Your task to perform on an android device: Open location settings Image 0: 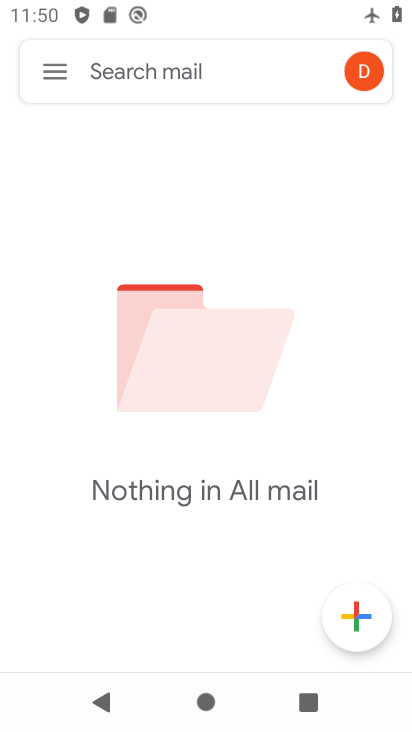
Step 0: press home button
Your task to perform on an android device: Open location settings Image 1: 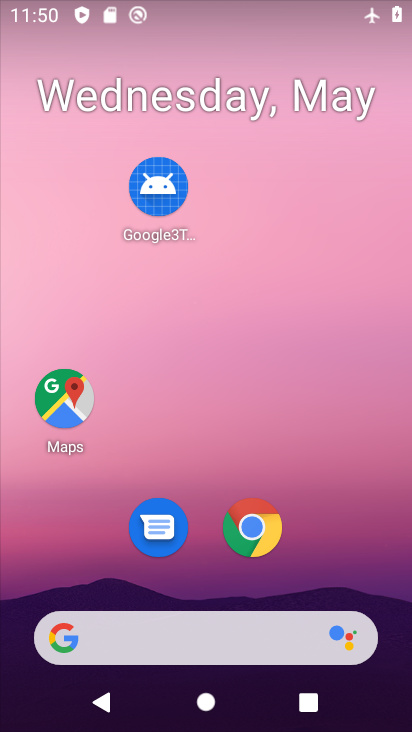
Step 1: drag from (213, 573) to (231, 23)
Your task to perform on an android device: Open location settings Image 2: 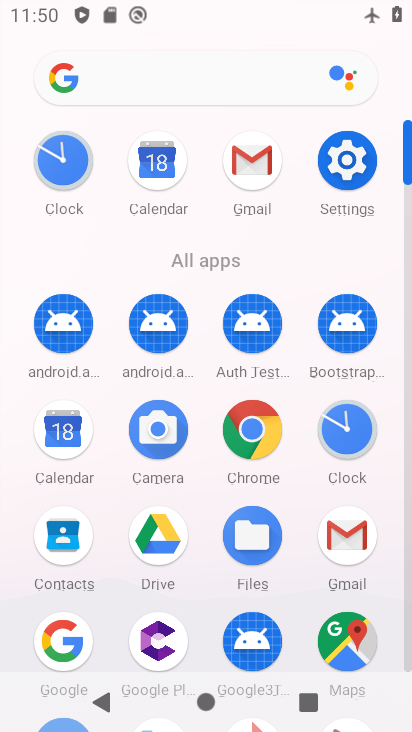
Step 2: click (339, 156)
Your task to perform on an android device: Open location settings Image 3: 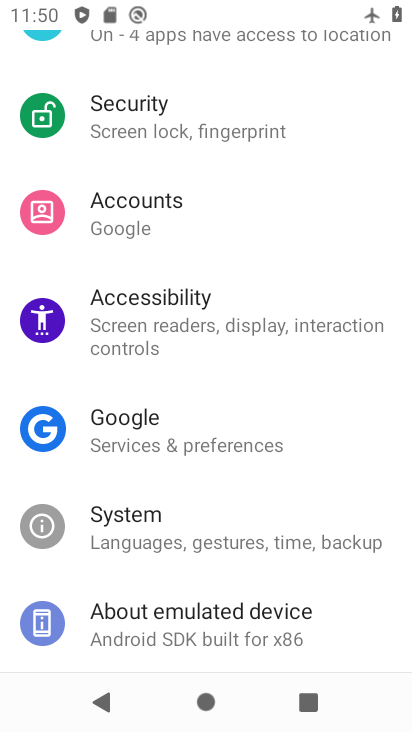
Step 3: drag from (175, 189) to (179, 571)
Your task to perform on an android device: Open location settings Image 4: 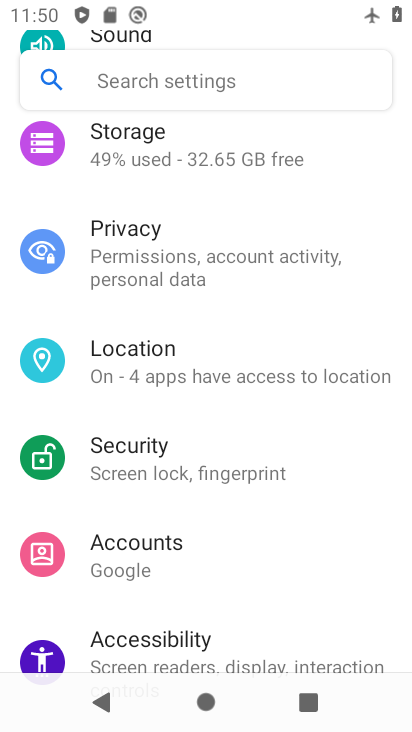
Step 4: click (199, 359)
Your task to perform on an android device: Open location settings Image 5: 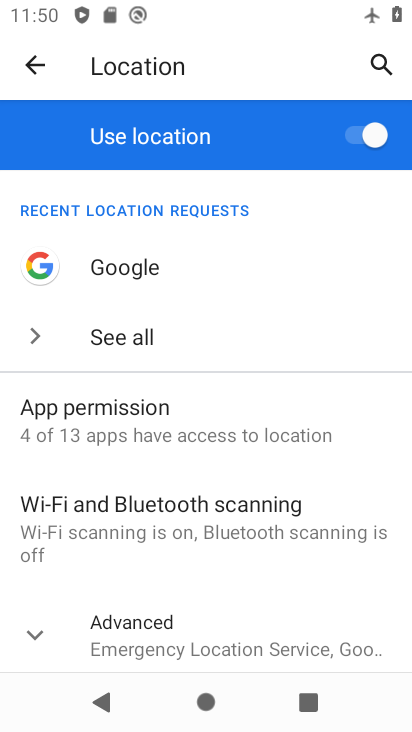
Step 5: click (22, 626)
Your task to perform on an android device: Open location settings Image 6: 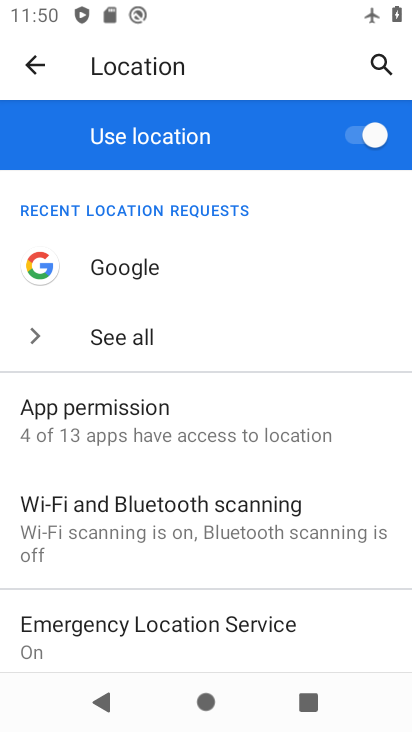
Step 6: task complete